Your task to perform on an android device: open a new tab in the chrome app Image 0: 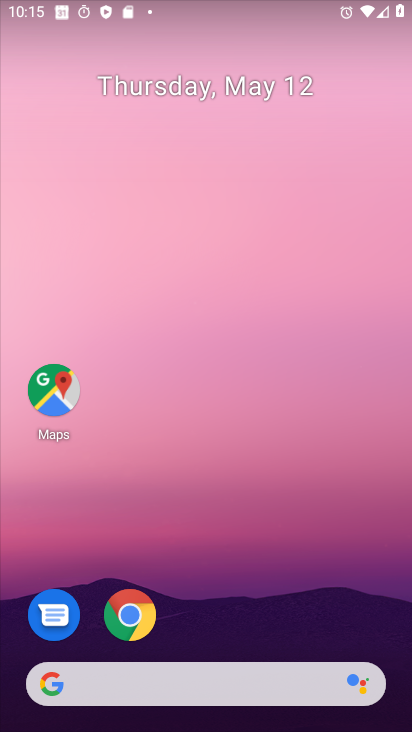
Step 0: click (123, 606)
Your task to perform on an android device: open a new tab in the chrome app Image 1: 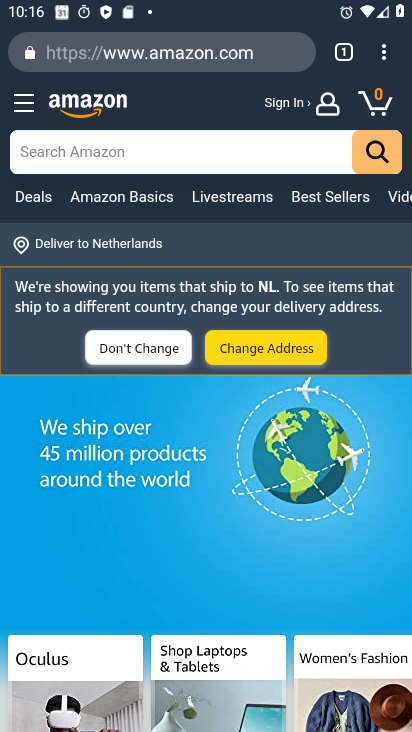
Step 1: click (382, 53)
Your task to perform on an android device: open a new tab in the chrome app Image 2: 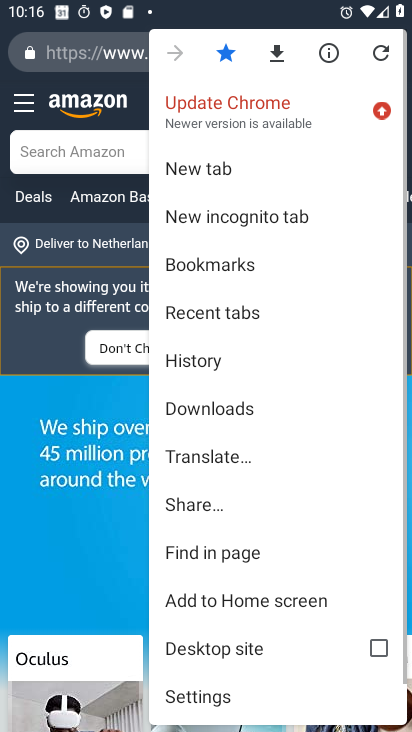
Step 2: click (198, 171)
Your task to perform on an android device: open a new tab in the chrome app Image 3: 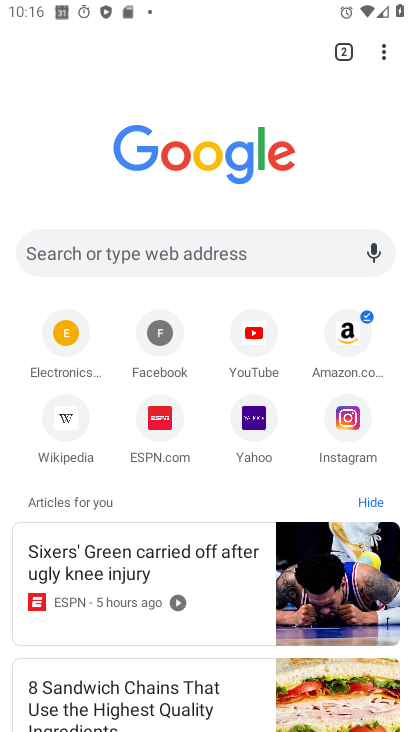
Step 3: task complete